Your task to perform on an android device: open device folders in google photos Image 0: 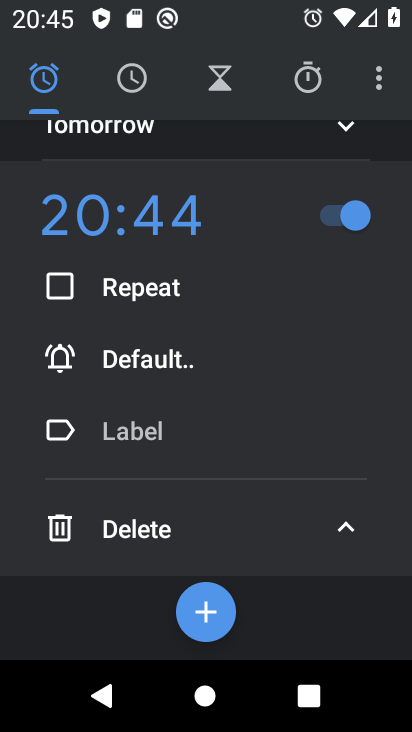
Step 0: press home button
Your task to perform on an android device: open device folders in google photos Image 1: 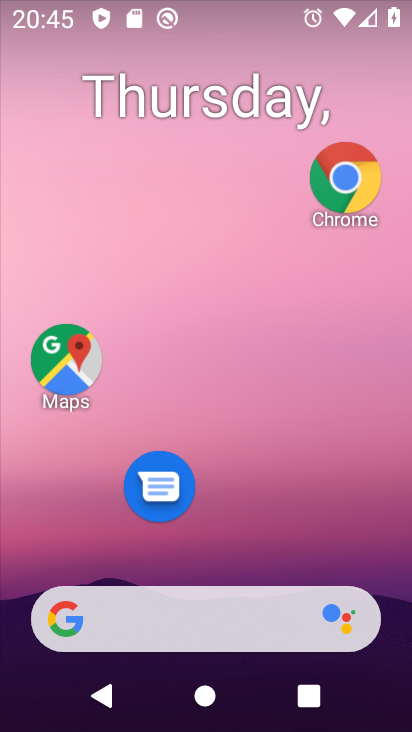
Step 1: drag from (249, 589) to (167, 10)
Your task to perform on an android device: open device folders in google photos Image 2: 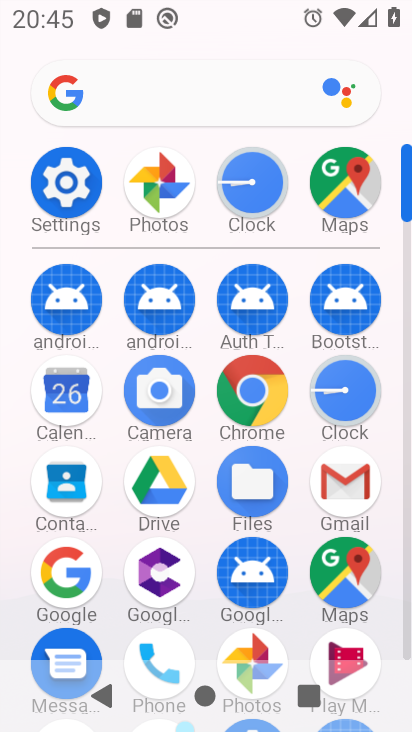
Step 2: click (247, 636)
Your task to perform on an android device: open device folders in google photos Image 3: 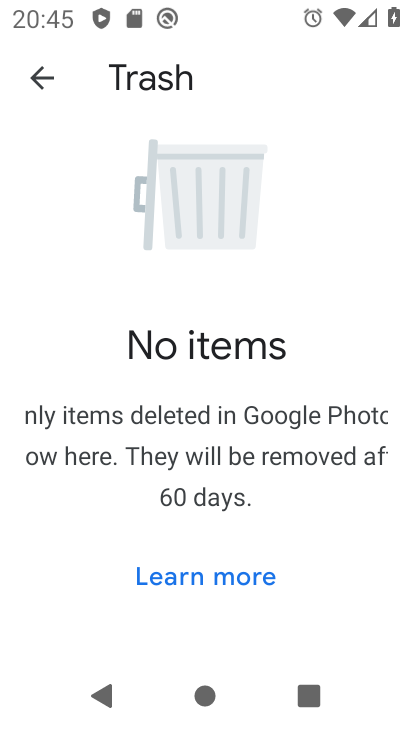
Step 3: click (36, 65)
Your task to perform on an android device: open device folders in google photos Image 4: 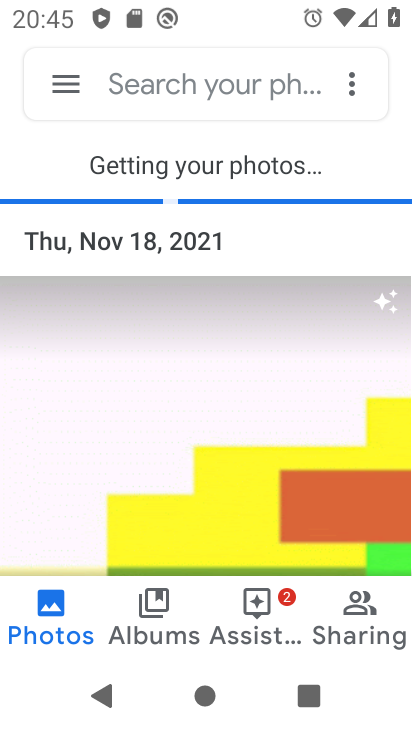
Step 4: click (80, 87)
Your task to perform on an android device: open device folders in google photos Image 5: 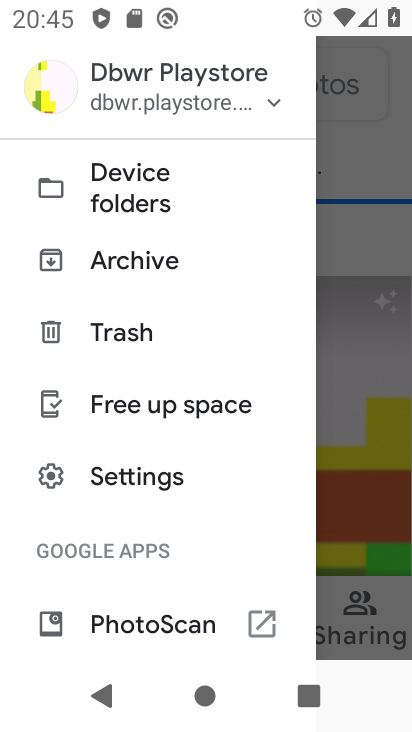
Step 5: click (103, 192)
Your task to perform on an android device: open device folders in google photos Image 6: 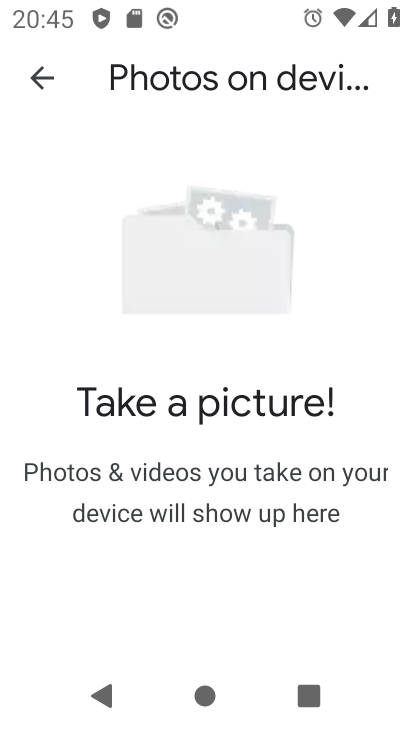
Step 6: task complete